Your task to perform on an android device: Open Google Maps Image 0: 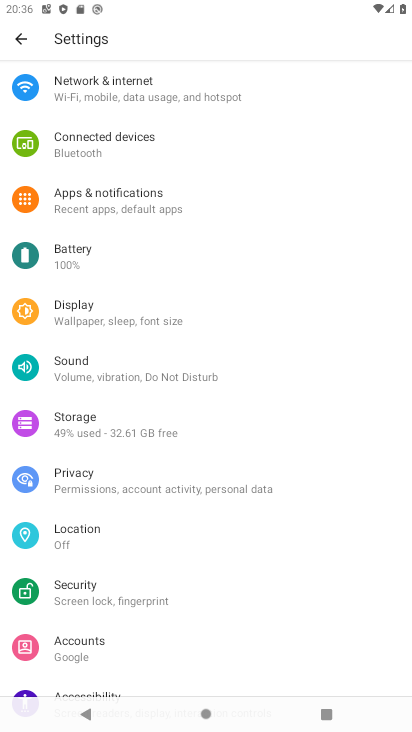
Step 0: press home button
Your task to perform on an android device: Open Google Maps Image 1: 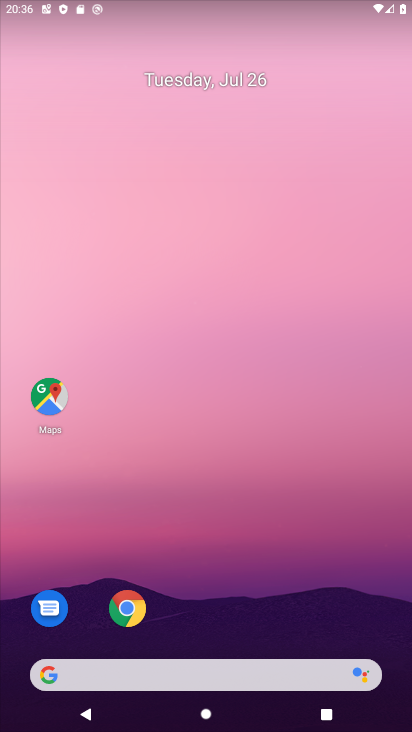
Step 1: click (43, 405)
Your task to perform on an android device: Open Google Maps Image 2: 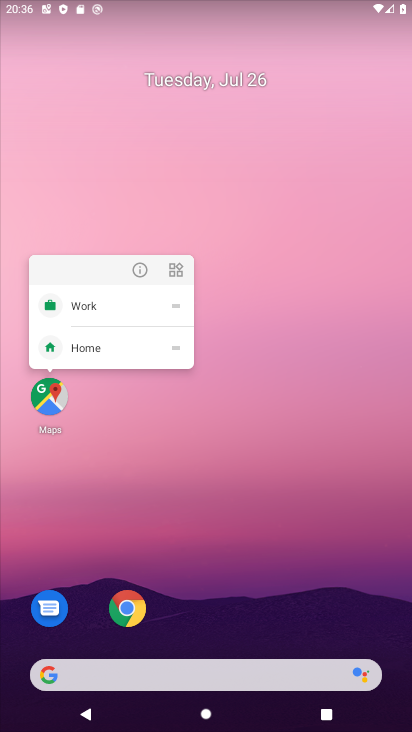
Step 2: click (51, 407)
Your task to perform on an android device: Open Google Maps Image 3: 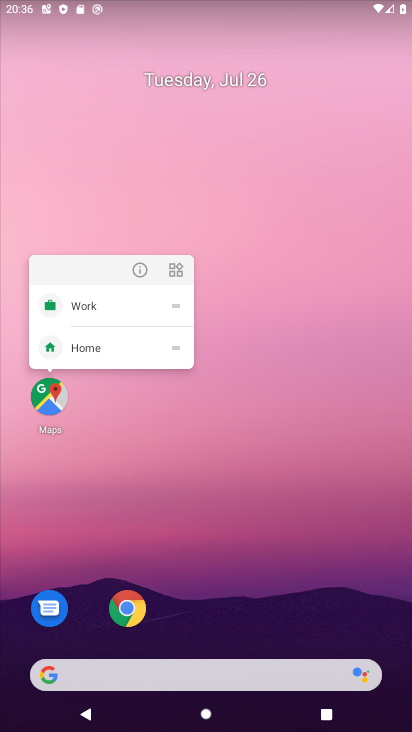
Step 3: click (45, 408)
Your task to perform on an android device: Open Google Maps Image 4: 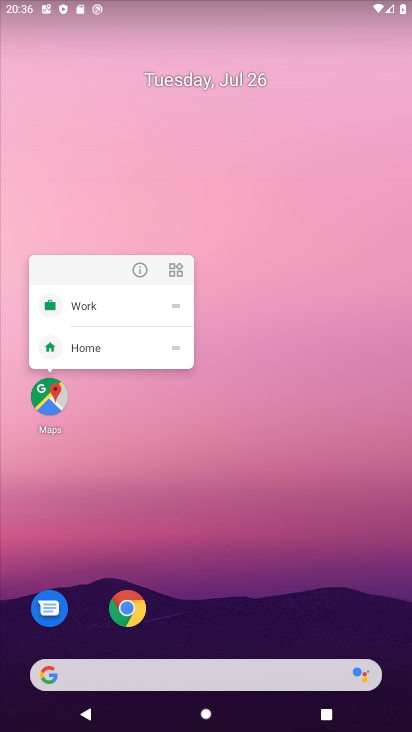
Step 4: click (43, 396)
Your task to perform on an android device: Open Google Maps Image 5: 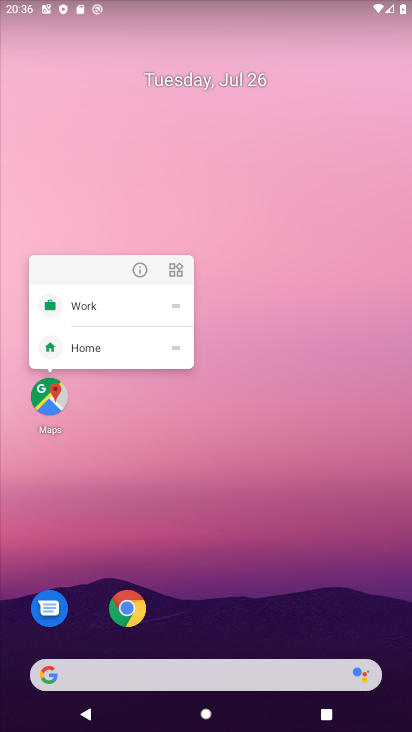
Step 5: click (45, 402)
Your task to perform on an android device: Open Google Maps Image 6: 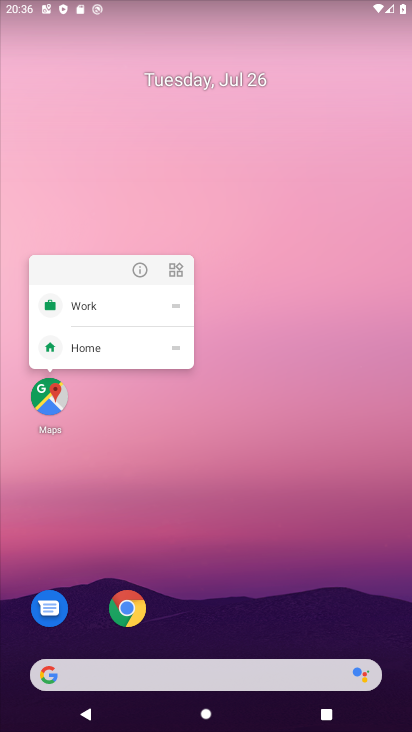
Step 6: task complete